Your task to perform on an android device: turn off javascript in the chrome app Image 0: 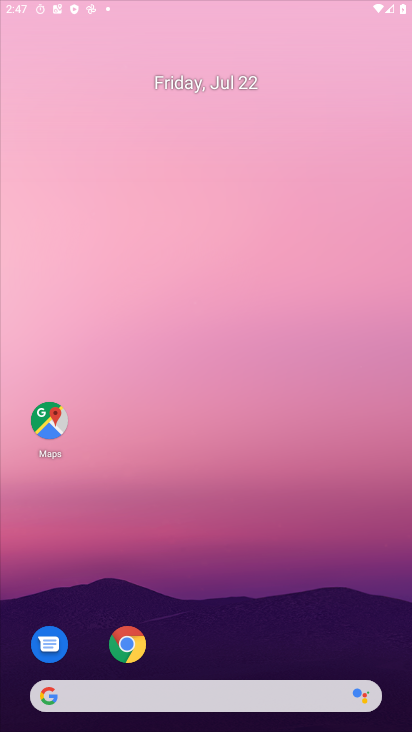
Step 0: press home button
Your task to perform on an android device: turn off javascript in the chrome app Image 1: 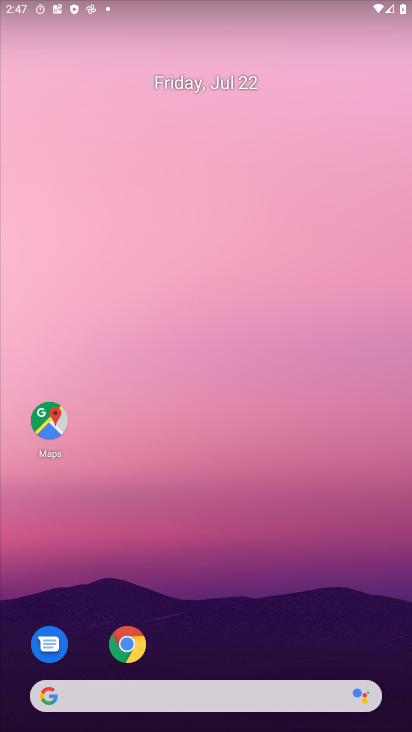
Step 1: drag from (244, 661) to (266, 310)
Your task to perform on an android device: turn off javascript in the chrome app Image 2: 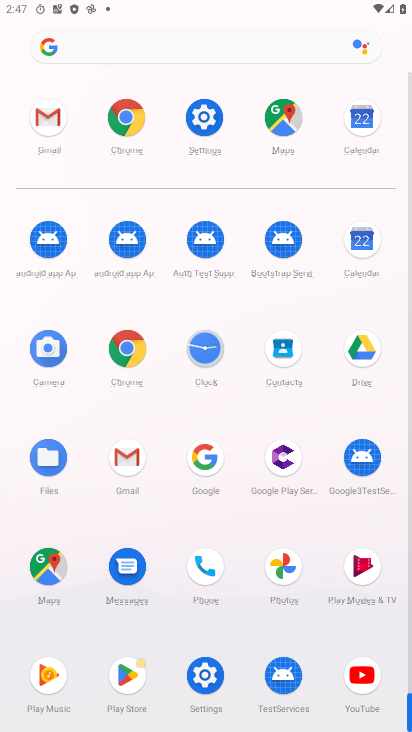
Step 2: click (131, 136)
Your task to perform on an android device: turn off javascript in the chrome app Image 3: 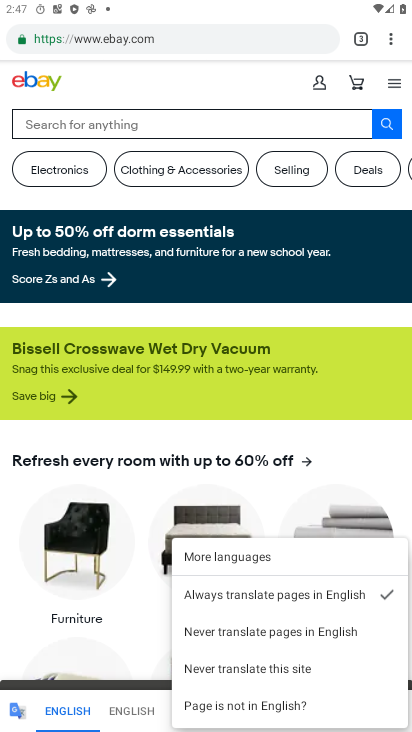
Step 3: click (389, 42)
Your task to perform on an android device: turn off javascript in the chrome app Image 4: 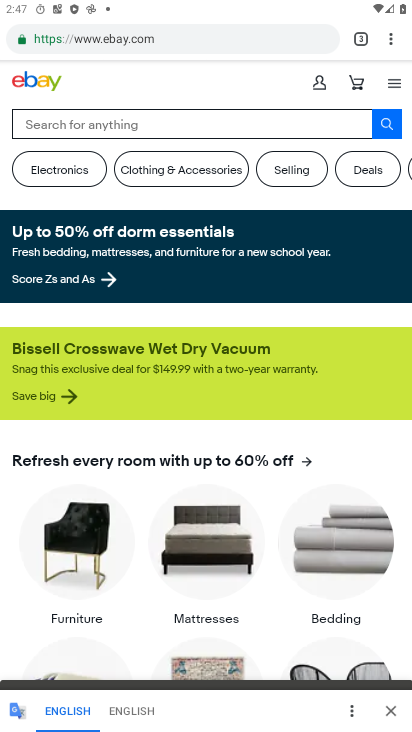
Step 4: click (395, 45)
Your task to perform on an android device: turn off javascript in the chrome app Image 5: 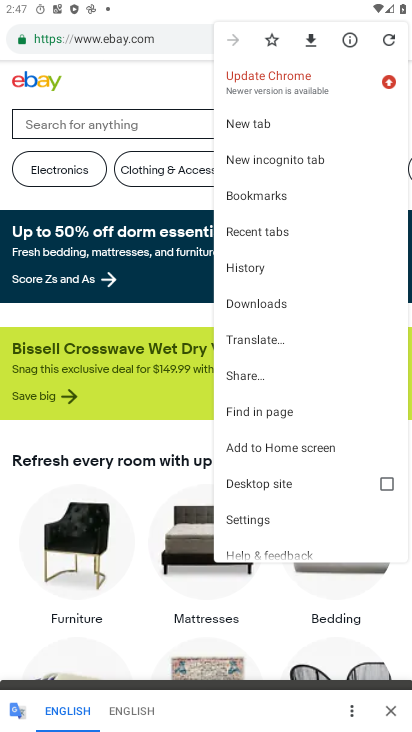
Step 5: click (258, 514)
Your task to perform on an android device: turn off javascript in the chrome app Image 6: 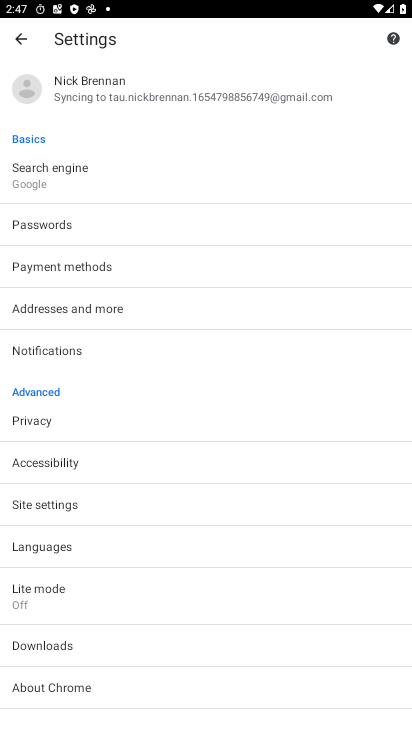
Step 6: click (95, 504)
Your task to perform on an android device: turn off javascript in the chrome app Image 7: 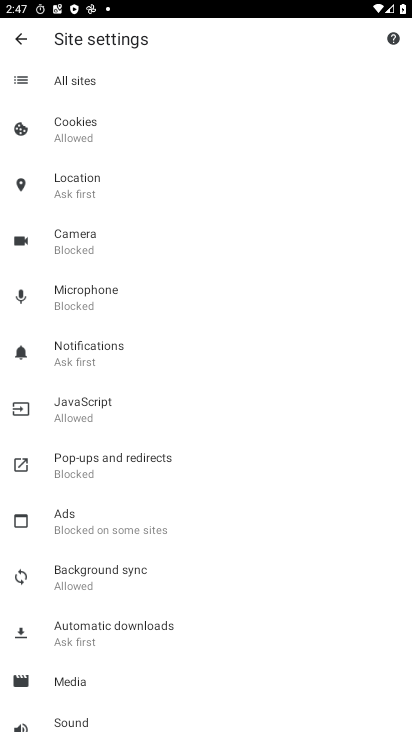
Step 7: click (119, 417)
Your task to perform on an android device: turn off javascript in the chrome app Image 8: 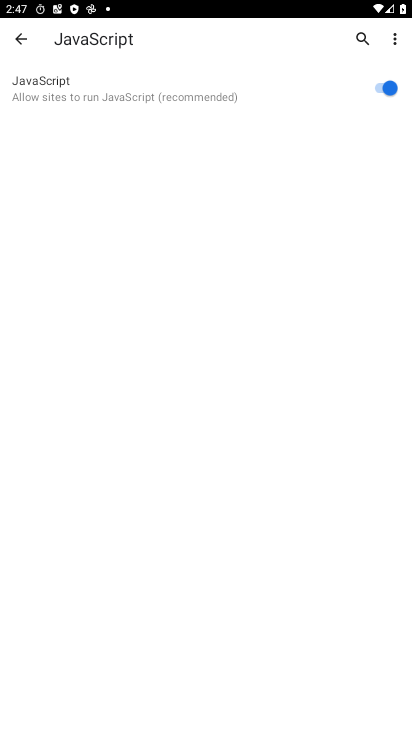
Step 8: click (362, 93)
Your task to perform on an android device: turn off javascript in the chrome app Image 9: 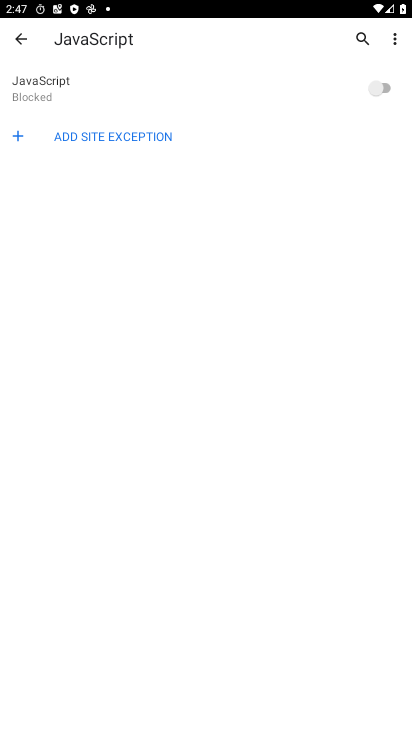
Step 9: task complete